Your task to perform on an android device: Open Amazon Image 0: 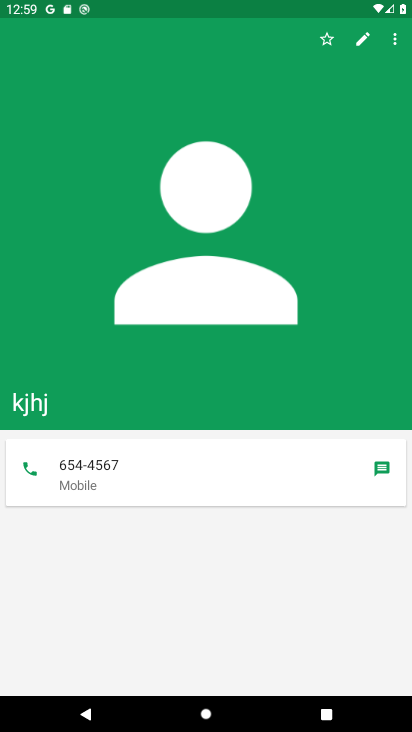
Step 0: press home button
Your task to perform on an android device: Open Amazon Image 1: 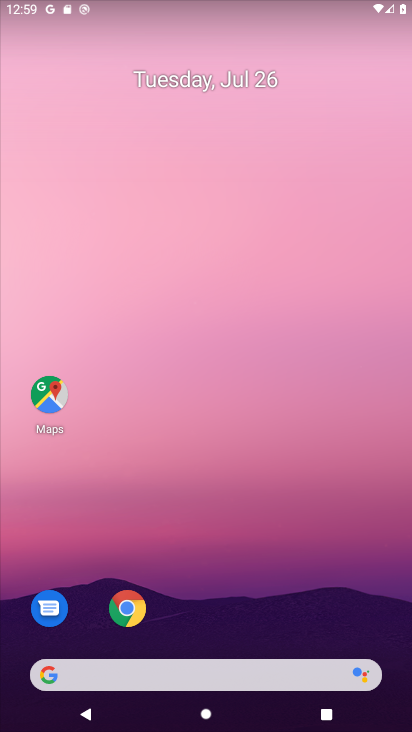
Step 1: click (138, 620)
Your task to perform on an android device: Open Amazon Image 2: 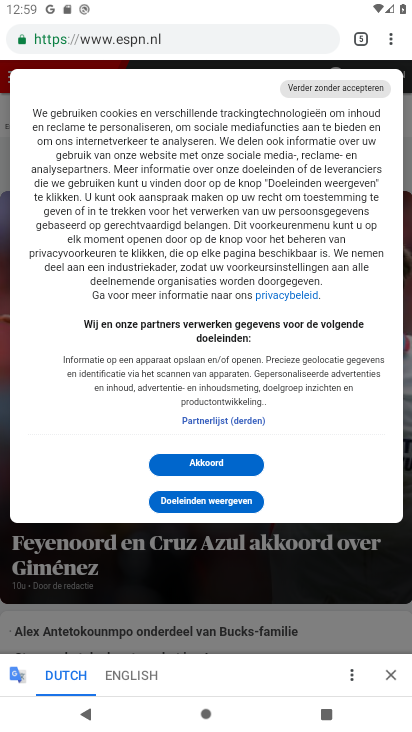
Step 2: click (358, 44)
Your task to perform on an android device: Open Amazon Image 3: 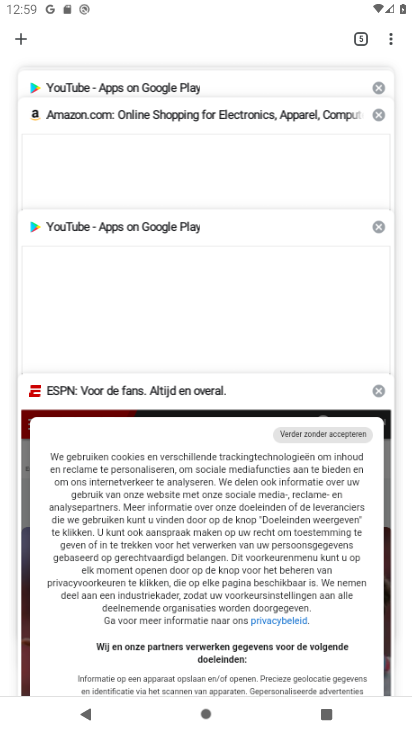
Step 3: click (58, 159)
Your task to perform on an android device: Open Amazon Image 4: 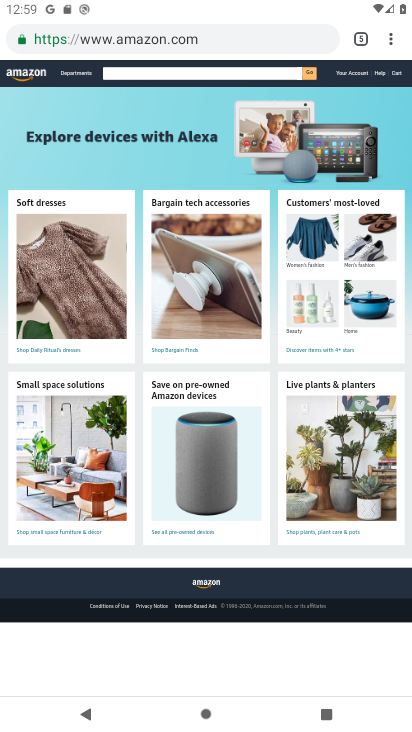
Step 4: task complete